Your task to perform on an android device: turn off sleep mode Image 0: 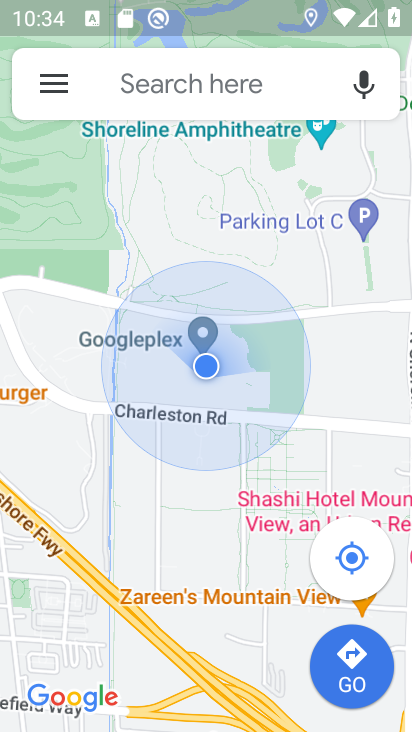
Step 0: press home button
Your task to perform on an android device: turn off sleep mode Image 1: 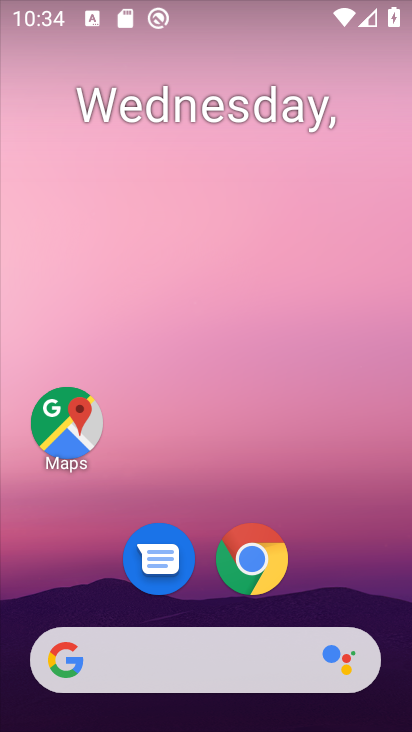
Step 1: drag from (150, 653) to (209, 135)
Your task to perform on an android device: turn off sleep mode Image 2: 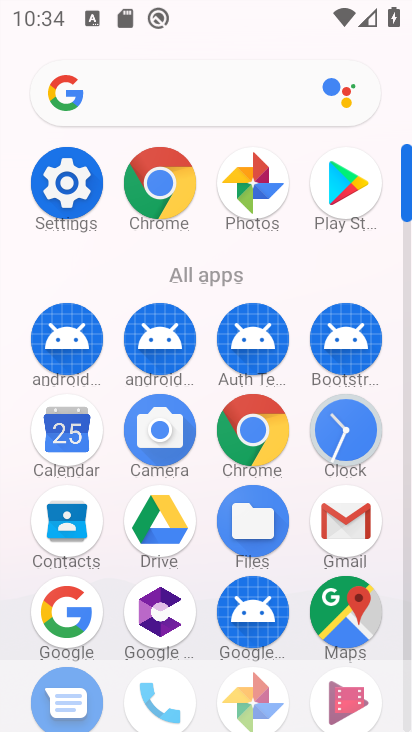
Step 2: click (81, 203)
Your task to perform on an android device: turn off sleep mode Image 3: 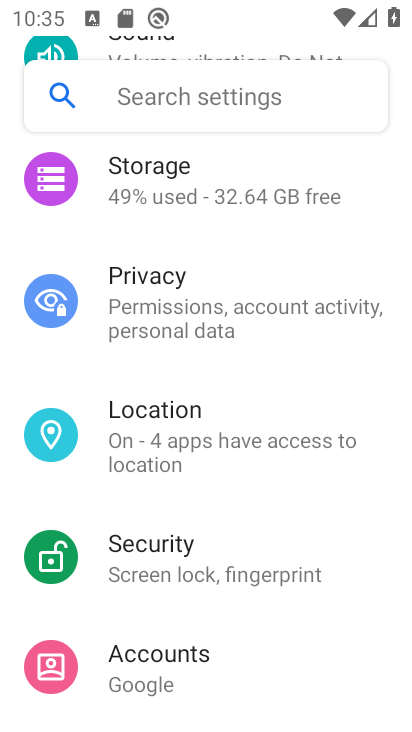
Step 3: drag from (193, 252) to (159, 652)
Your task to perform on an android device: turn off sleep mode Image 4: 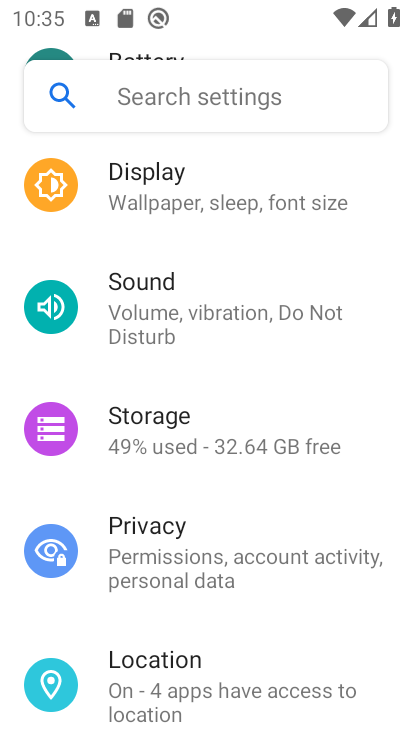
Step 4: click (212, 212)
Your task to perform on an android device: turn off sleep mode Image 5: 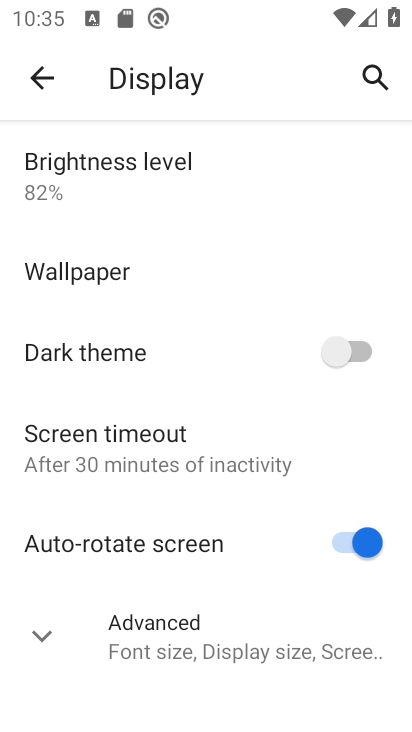
Step 5: click (113, 634)
Your task to perform on an android device: turn off sleep mode Image 6: 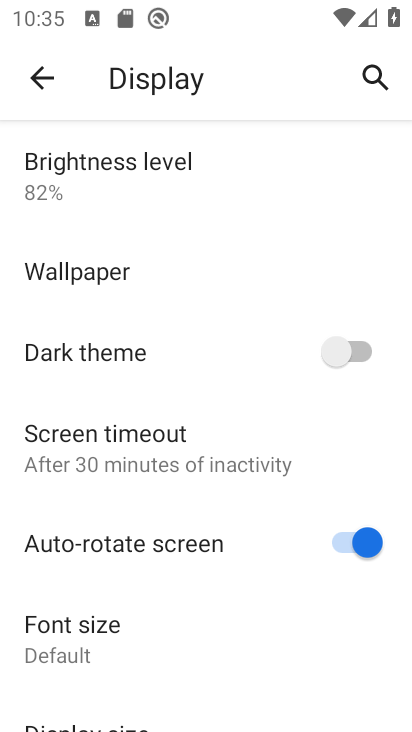
Step 6: task complete